Your task to perform on an android device: check data usage Image 0: 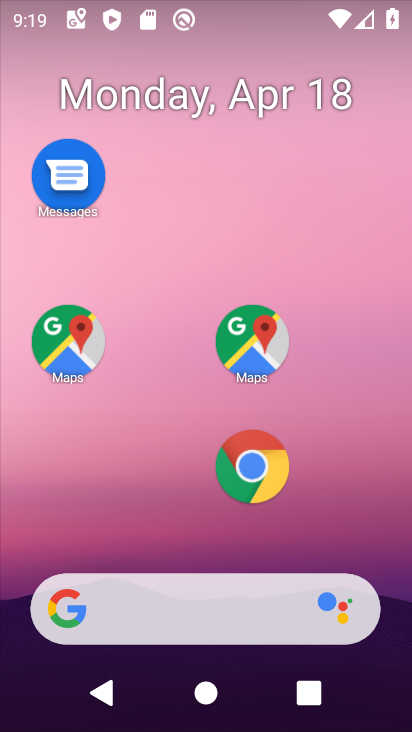
Step 0: drag from (184, 323) to (258, 0)
Your task to perform on an android device: check data usage Image 1: 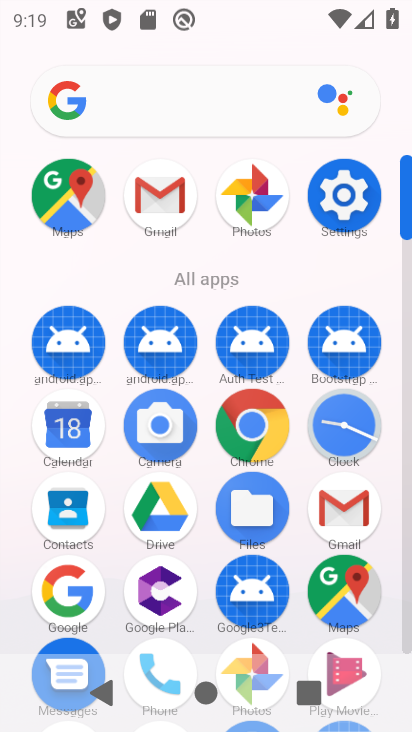
Step 1: click (355, 203)
Your task to perform on an android device: check data usage Image 2: 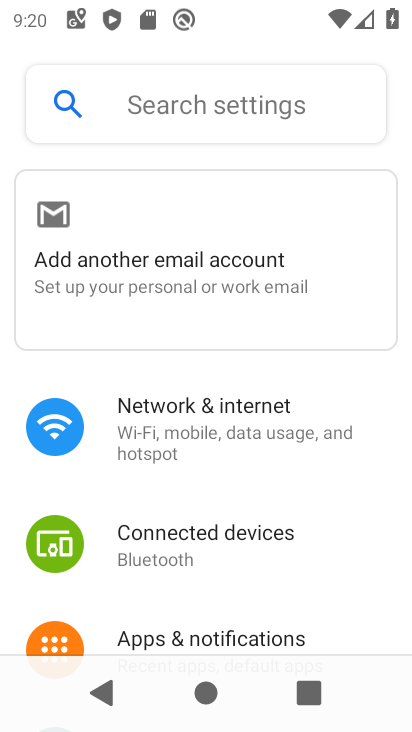
Step 2: click (189, 439)
Your task to perform on an android device: check data usage Image 3: 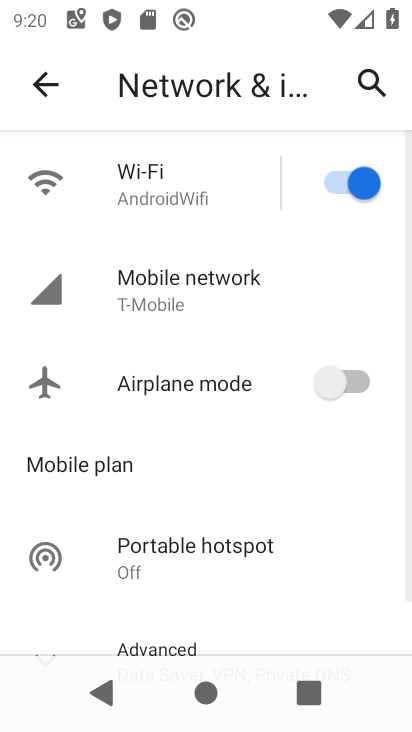
Step 3: click (182, 310)
Your task to perform on an android device: check data usage Image 4: 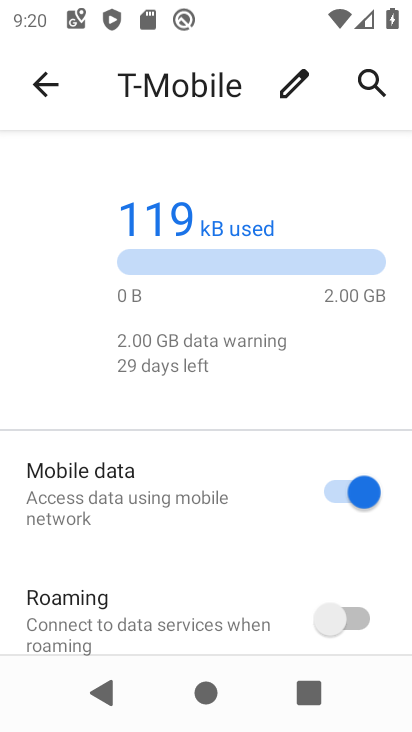
Step 4: drag from (174, 600) to (215, 192)
Your task to perform on an android device: check data usage Image 5: 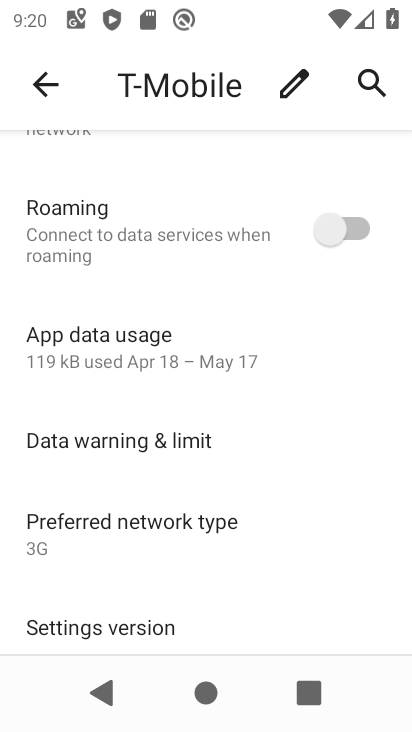
Step 5: click (170, 368)
Your task to perform on an android device: check data usage Image 6: 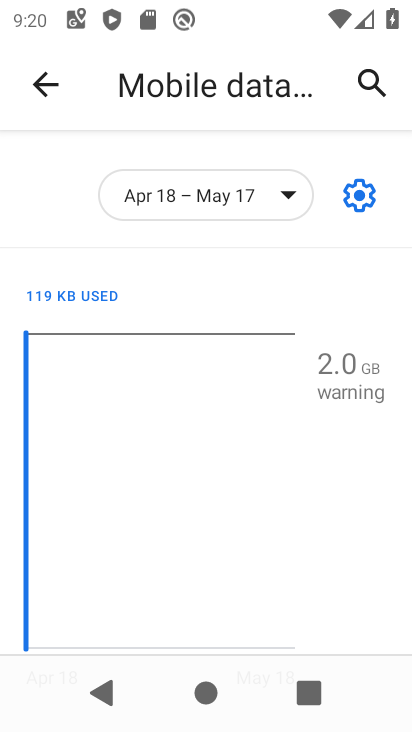
Step 6: task complete